Your task to perform on an android device: turn off wifi Image 0: 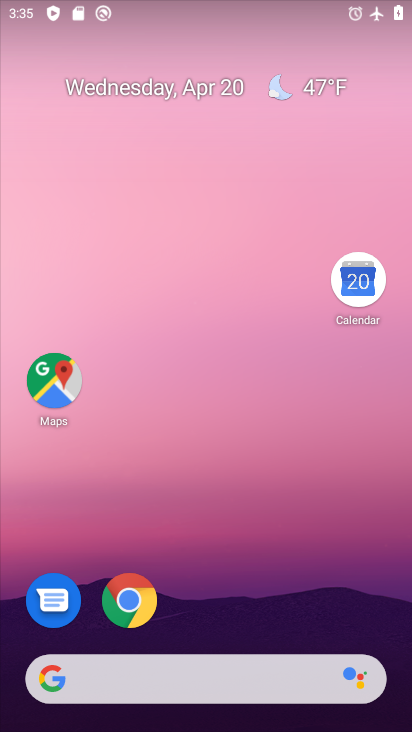
Step 0: drag from (259, 370) to (259, 334)
Your task to perform on an android device: turn off wifi Image 1: 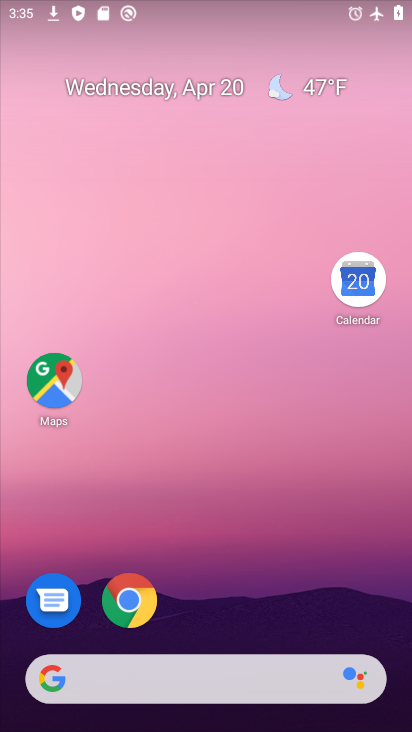
Step 1: drag from (174, 452) to (227, 183)
Your task to perform on an android device: turn off wifi Image 2: 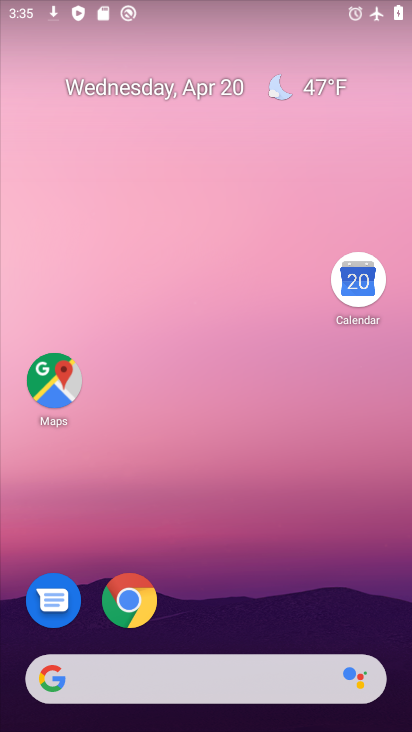
Step 2: drag from (196, 579) to (282, 78)
Your task to perform on an android device: turn off wifi Image 3: 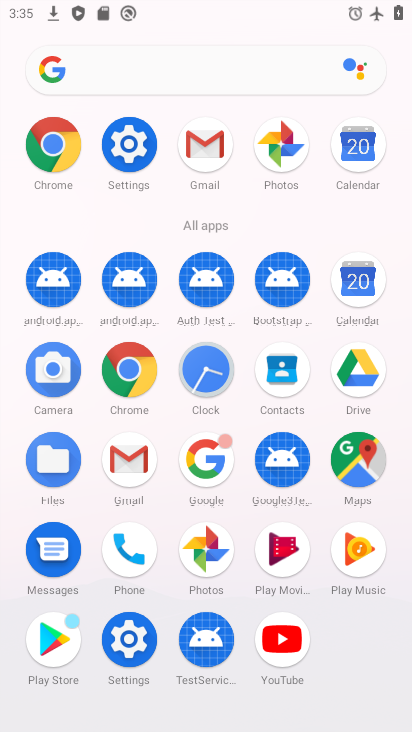
Step 3: click (126, 141)
Your task to perform on an android device: turn off wifi Image 4: 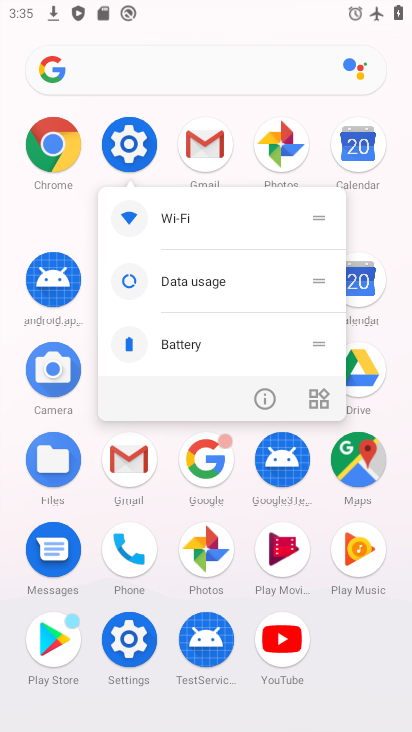
Step 4: click (126, 141)
Your task to perform on an android device: turn off wifi Image 5: 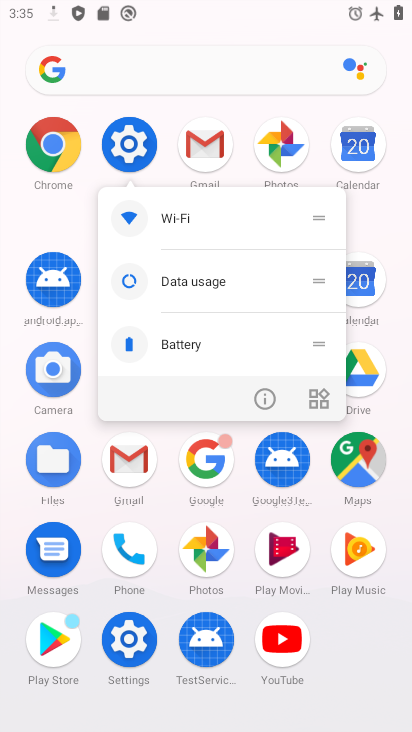
Step 5: click (126, 141)
Your task to perform on an android device: turn off wifi Image 6: 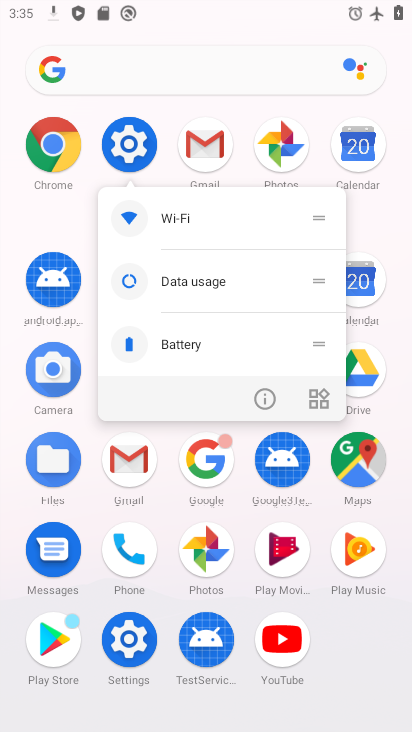
Step 6: click (126, 141)
Your task to perform on an android device: turn off wifi Image 7: 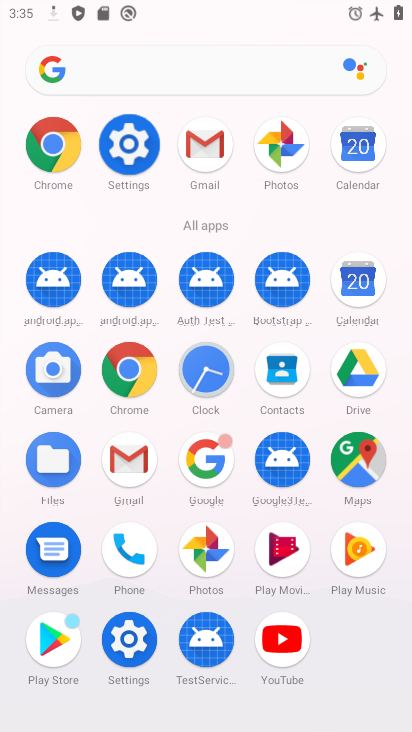
Step 7: click (126, 141)
Your task to perform on an android device: turn off wifi Image 8: 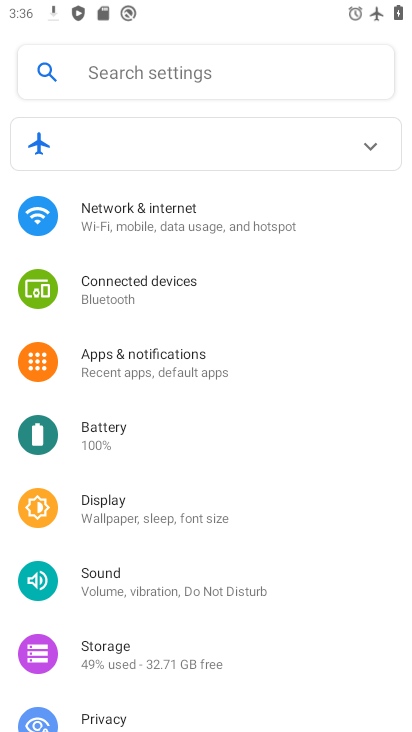
Step 8: click (191, 219)
Your task to perform on an android device: turn off wifi Image 9: 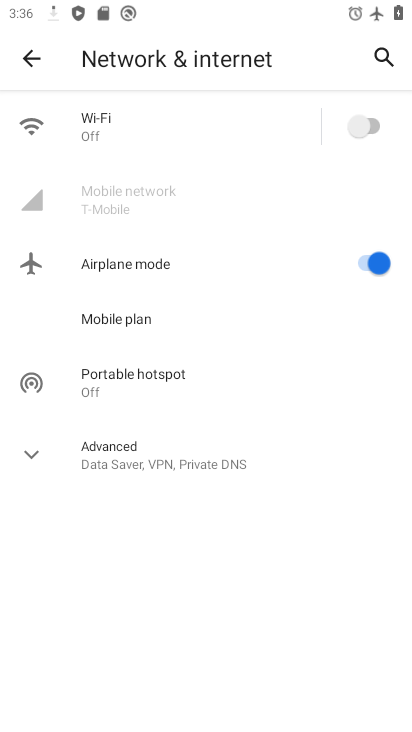
Step 9: task complete